Your task to perform on an android device: Go to Amazon Image 0: 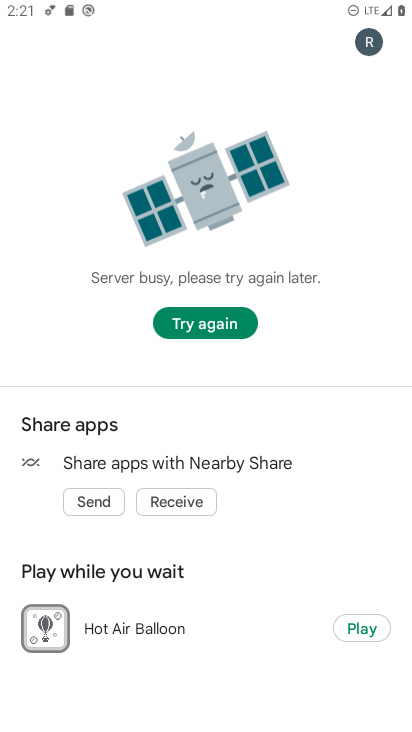
Step 0: press home button
Your task to perform on an android device: Go to Amazon Image 1: 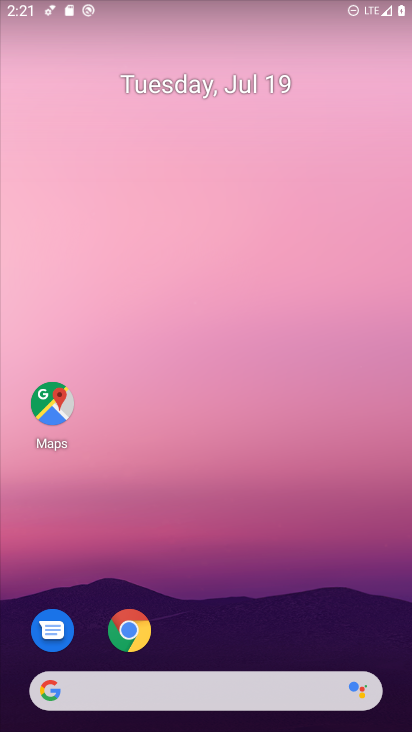
Step 1: click (131, 630)
Your task to perform on an android device: Go to Amazon Image 2: 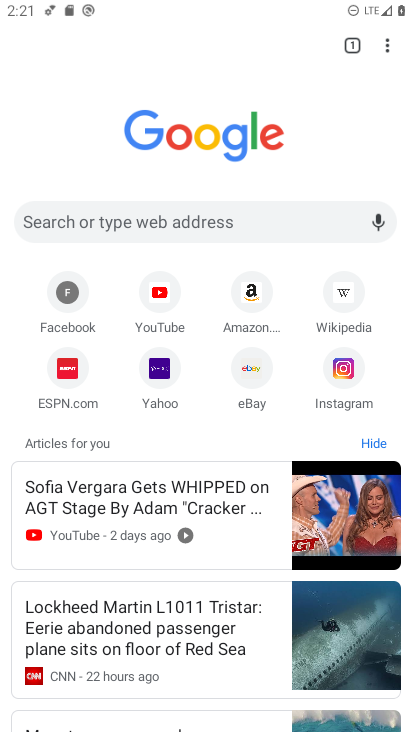
Step 2: click (134, 217)
Your task to perform on an android device: Go to Amazon Image 3: 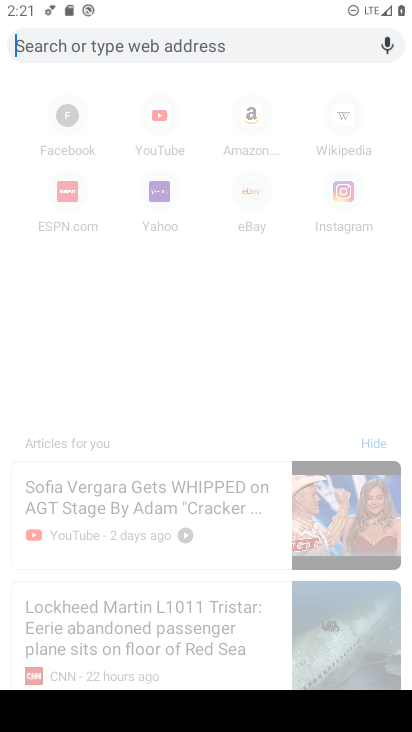
Step 3: type "amazon"
Your task to perform on an android device: Go to Amazon Image 4: 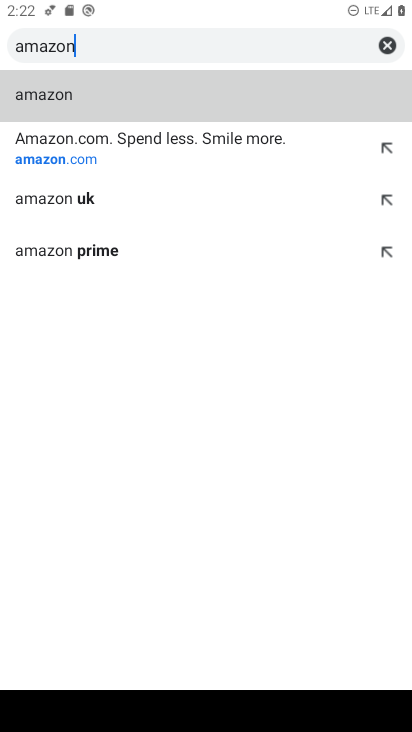
Step 4: click (60, 98)
Your task to perform on an android device: Go to Amazon Image 5: 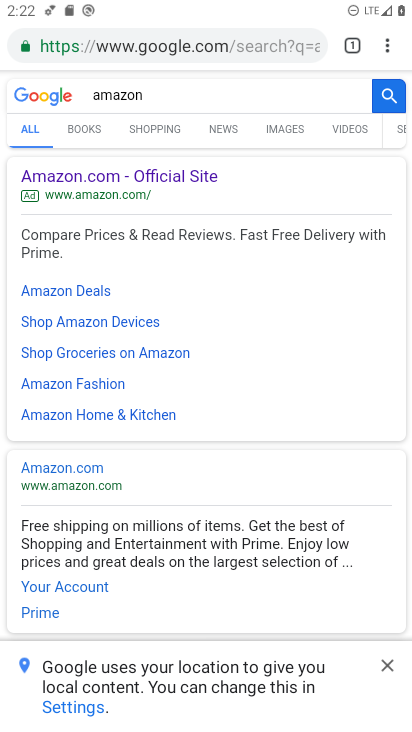
Step 5: click (94, 184)
Your task to perform on an android device: Go to Amazon Image 6: 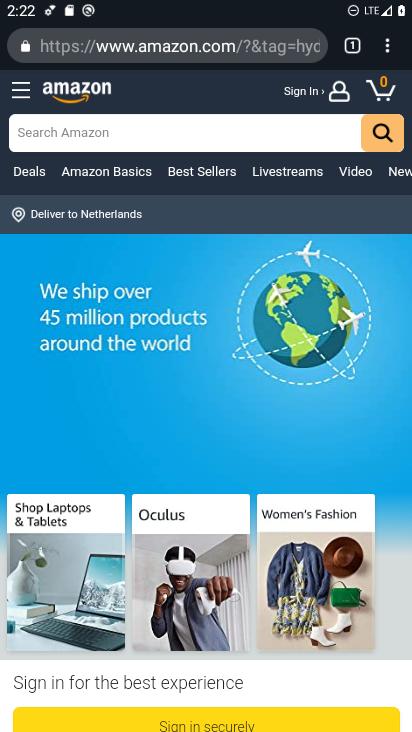
Step 6: task complete